Your task to perform on an android device: Open privacy settings Image 0: 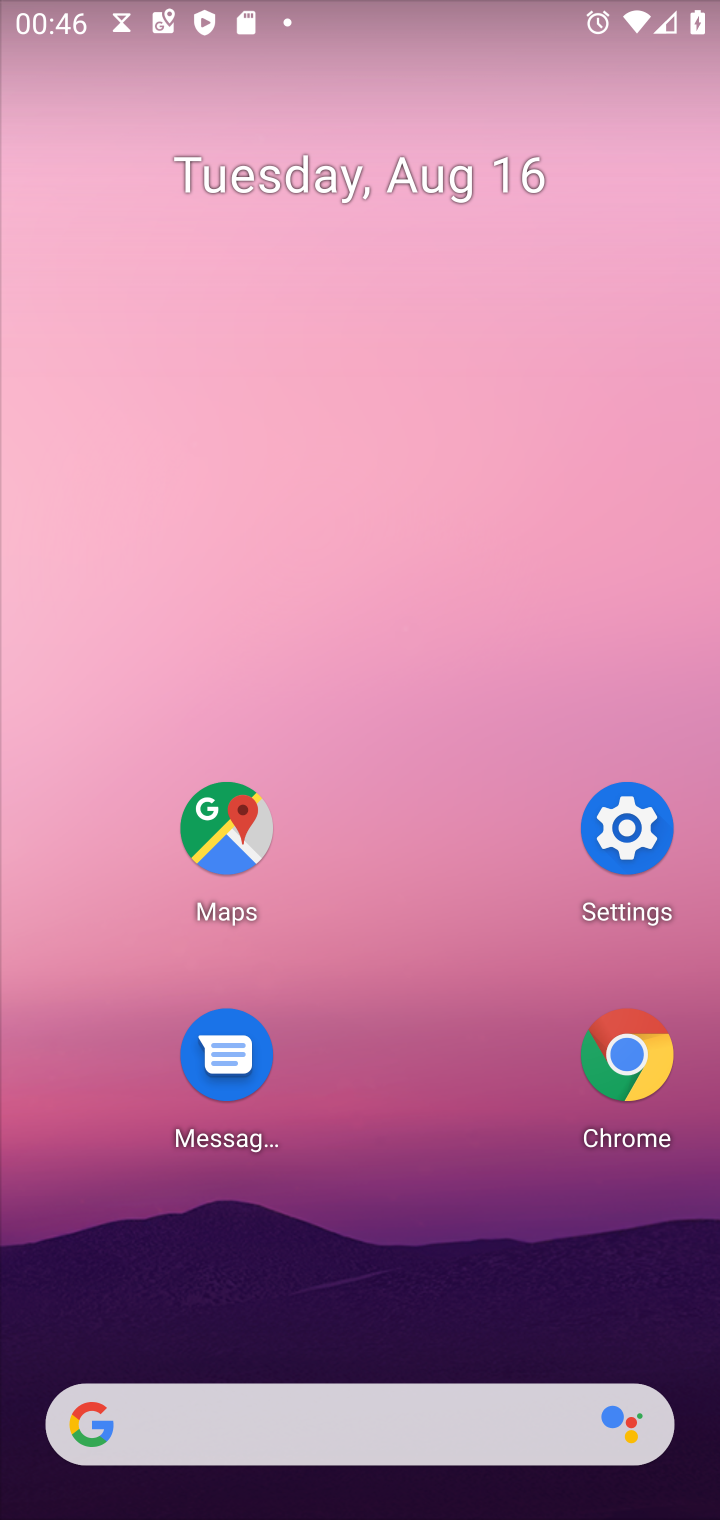
Step 0: click (599, 849)
Your task to perform on an android device: Open privacy settings Image 1: 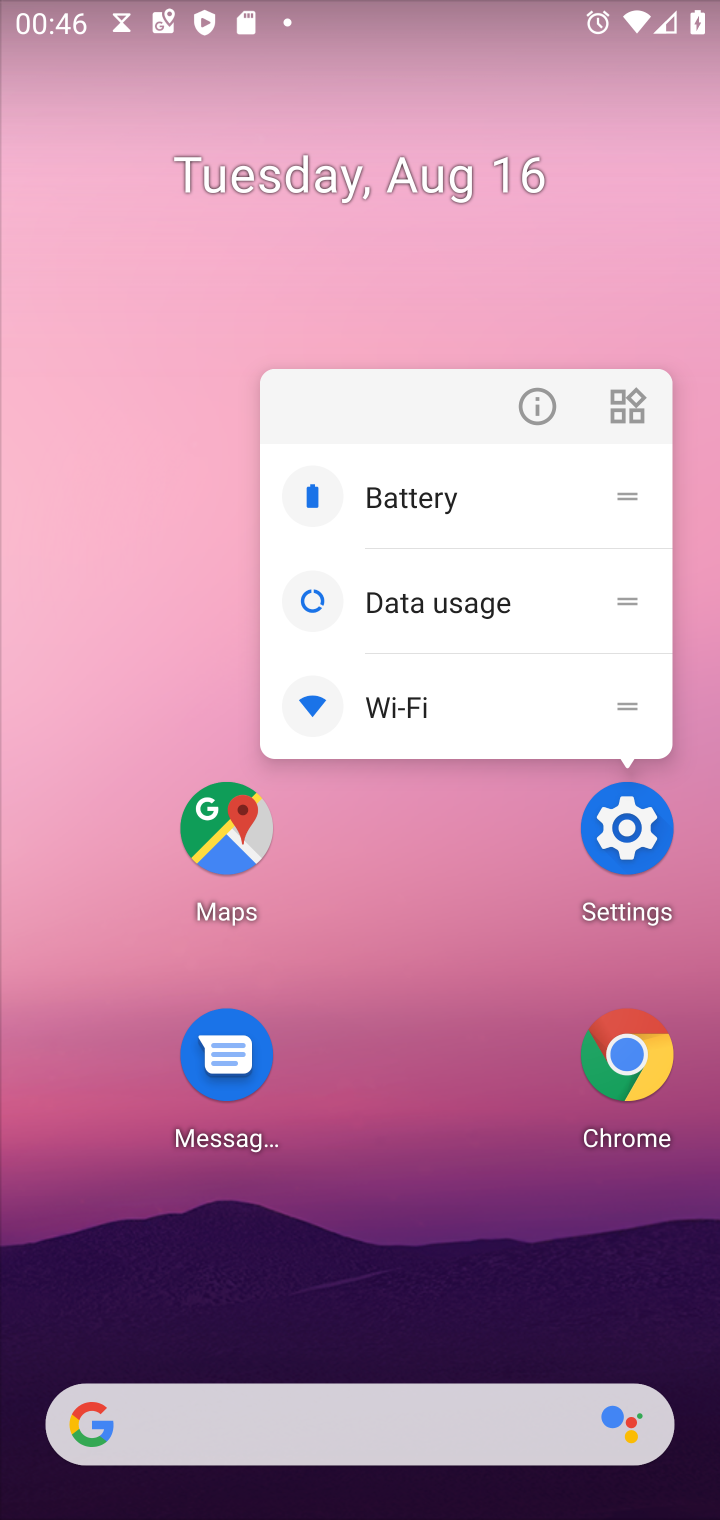
Step 1: click (599, 860)
Your task to perform on an android device: Open privacy settings Image 2: 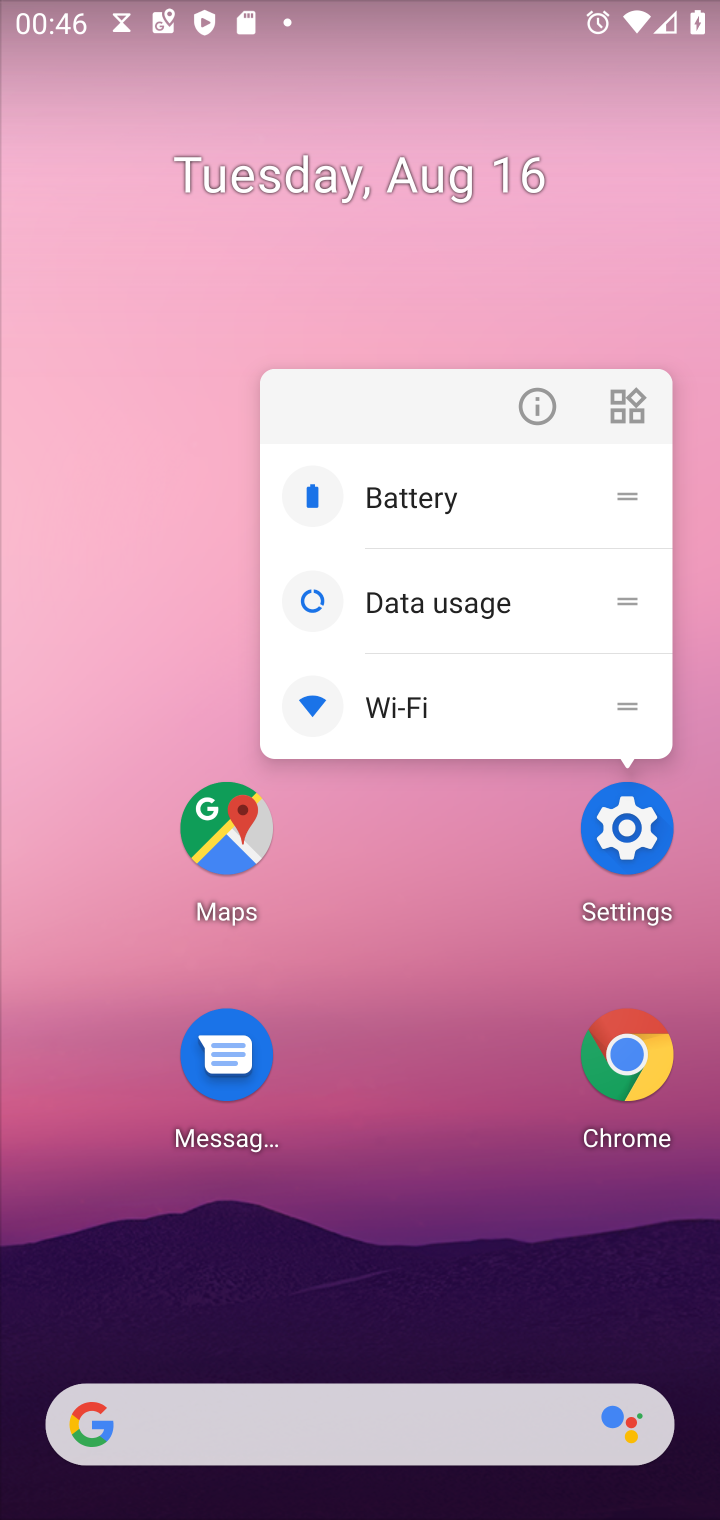
Step 2: click (623, 839)
Your task to perform on an android device: Open privacy settings Image 3: 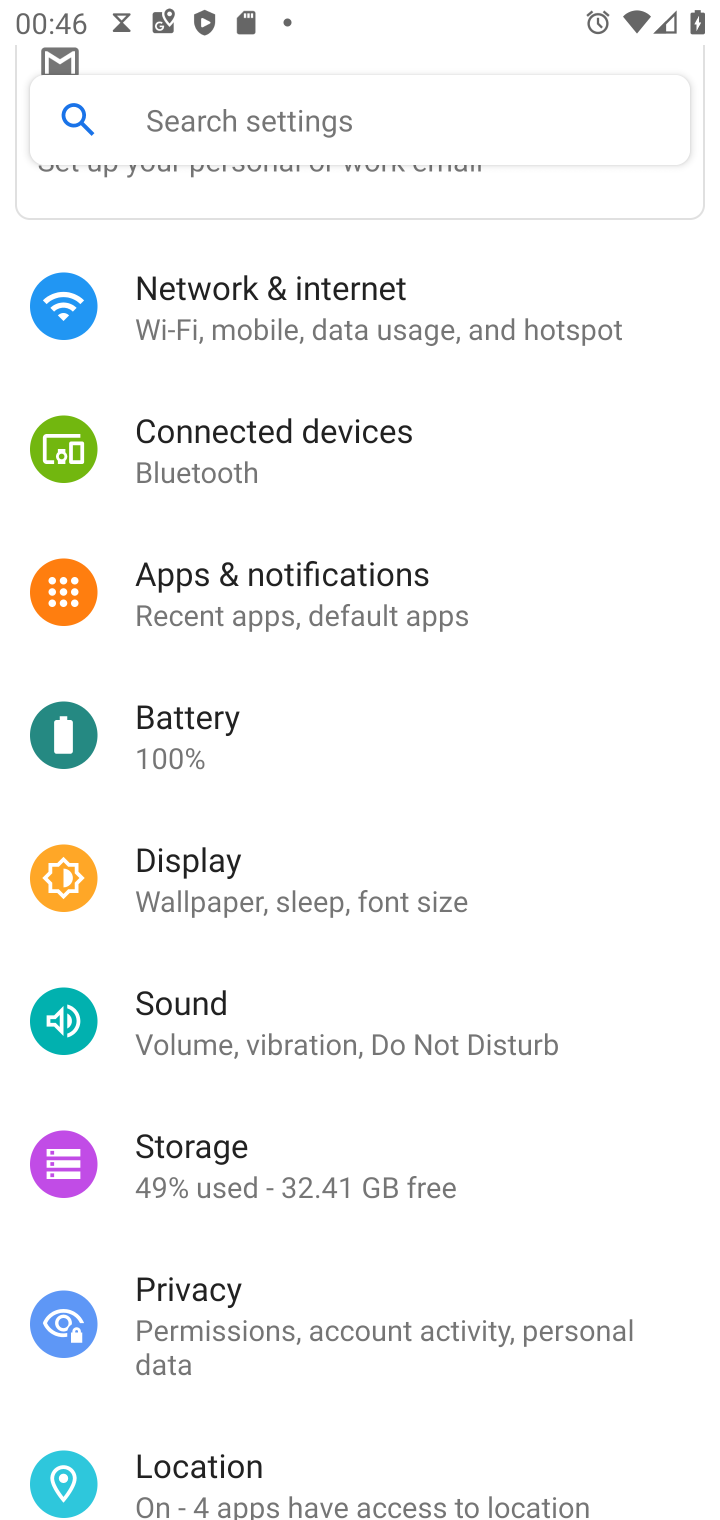
Step 3: click (190, 1301)
Your task to perform on an android device: Open privacy settings Image 4: 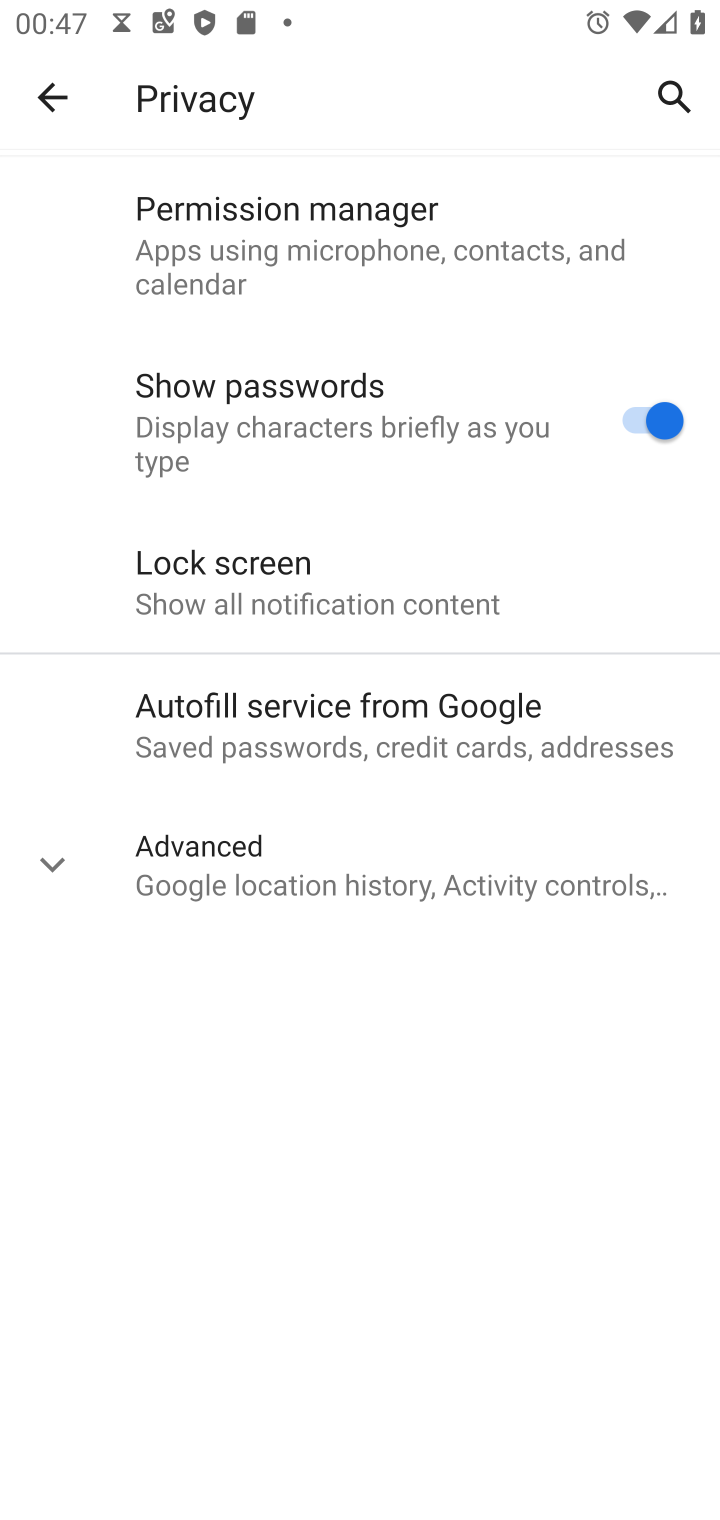
Step 4: task complete